Your task to perform on an android device: What's a good restaurant in Miami? Image 0: 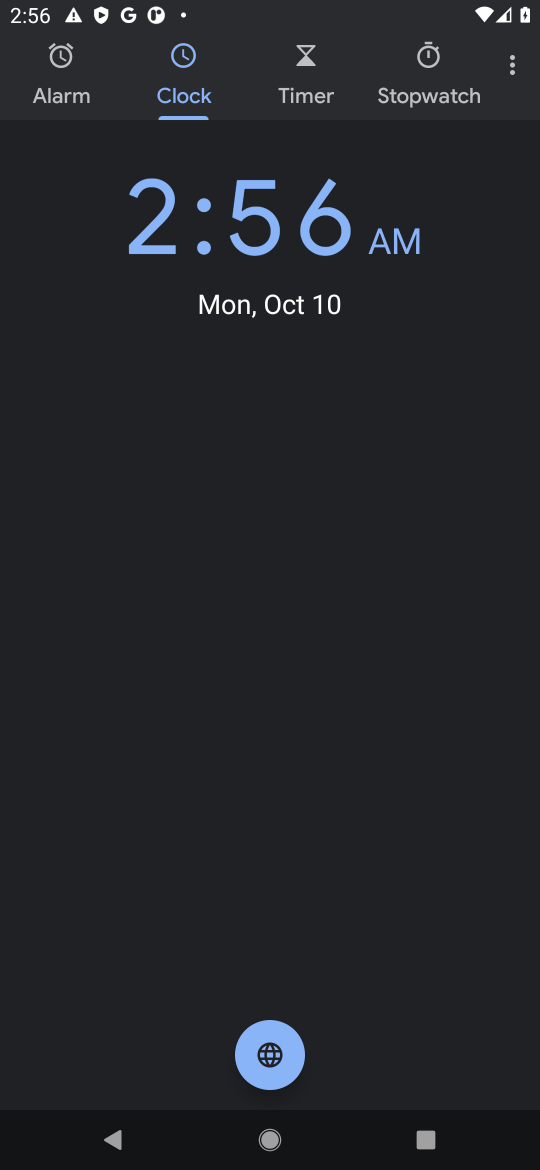
Step 0: press home button
Your task to perform on an android device: What's a good restaurant in Miami? Image 1: 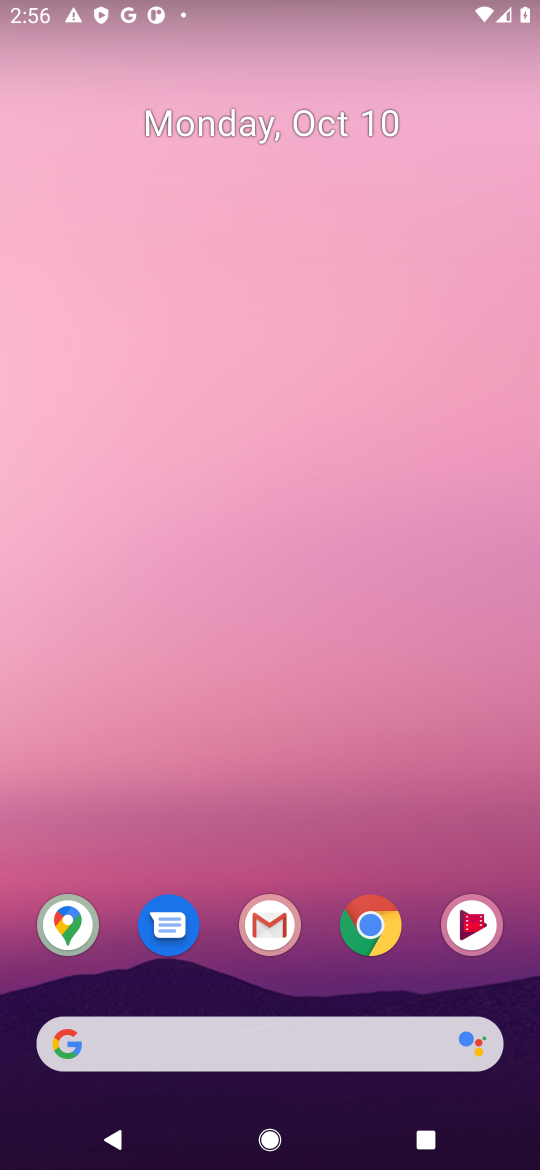
Step 1: click (352, 935)
Your task to perform on an android device: What's a good restaurant in Miami? Image 2: 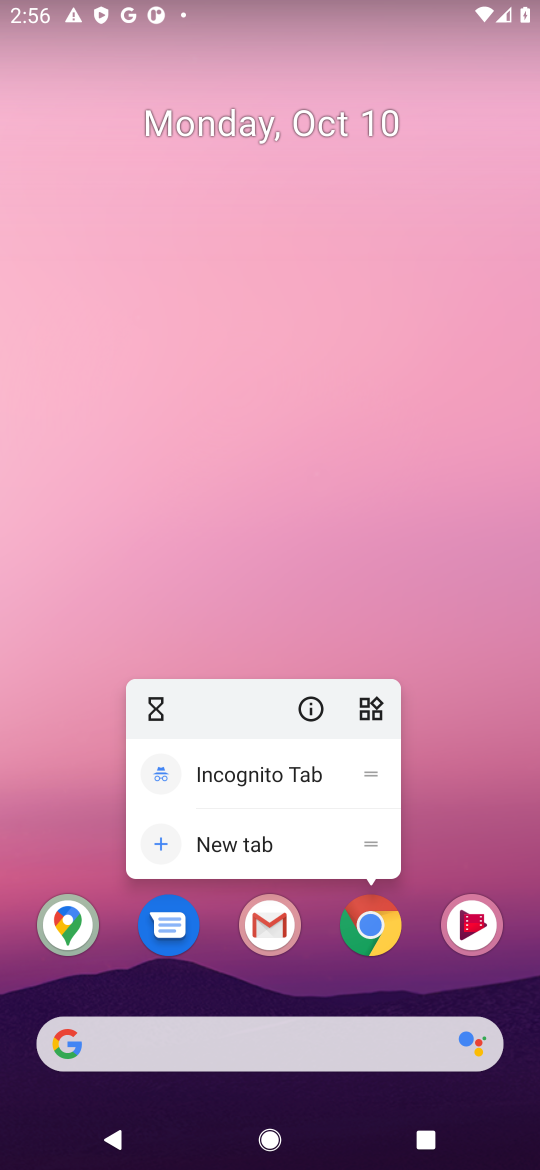
Step 2: click (339, 930)
Your task to perform on an android device: What's a good restaurant in Miami? Image 3: 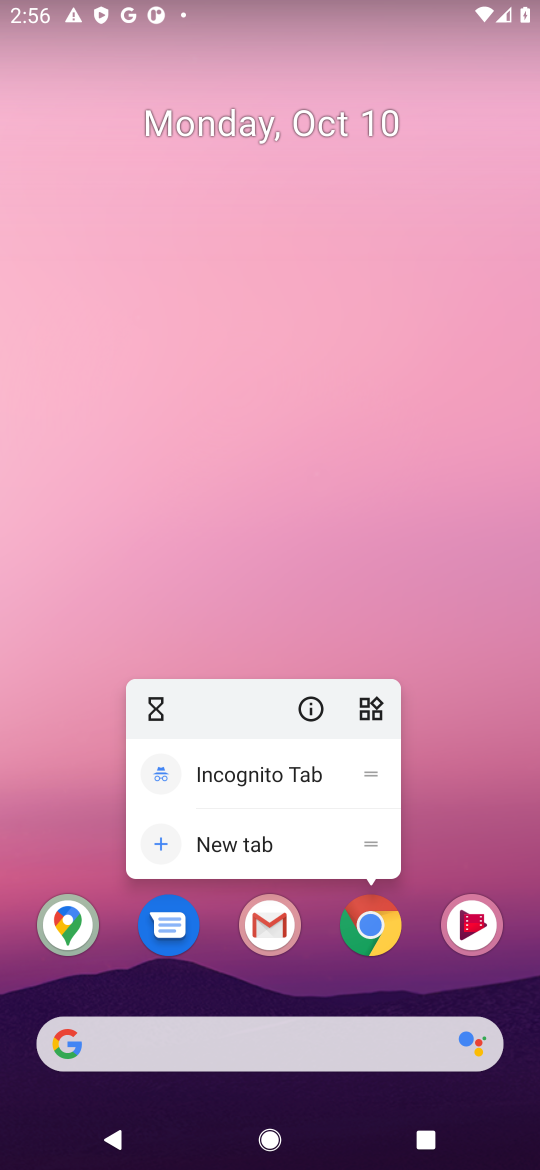
Step 3: click (356, 931)
Your task to perform on an android device: What's a good restaurant in Miami? Image 4: 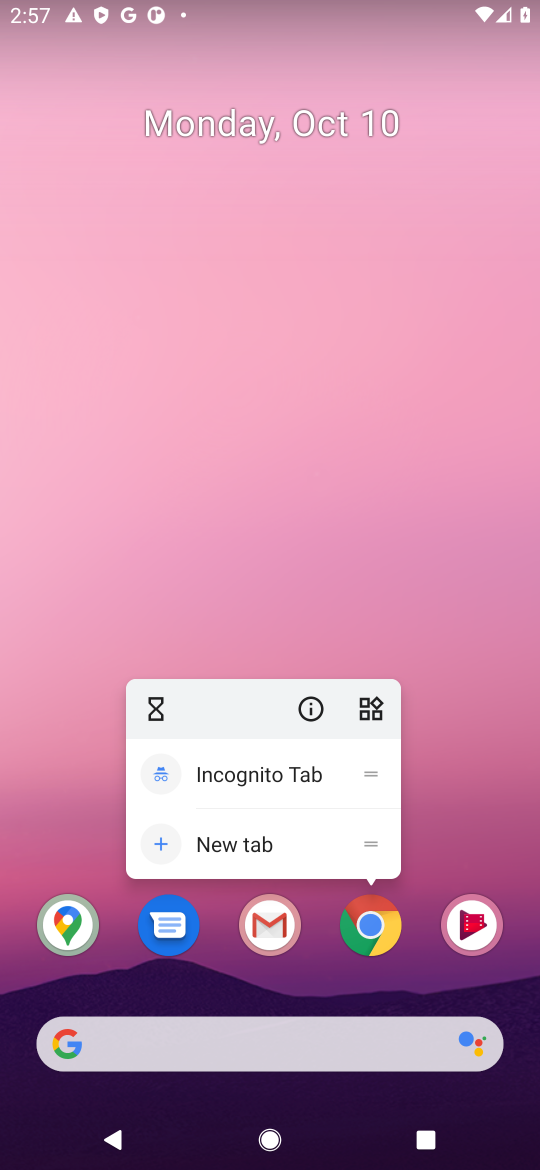
Step 4: click (380, 923)
Your task to perform on an android device: What's a good restaurant in Miami? Image 5: 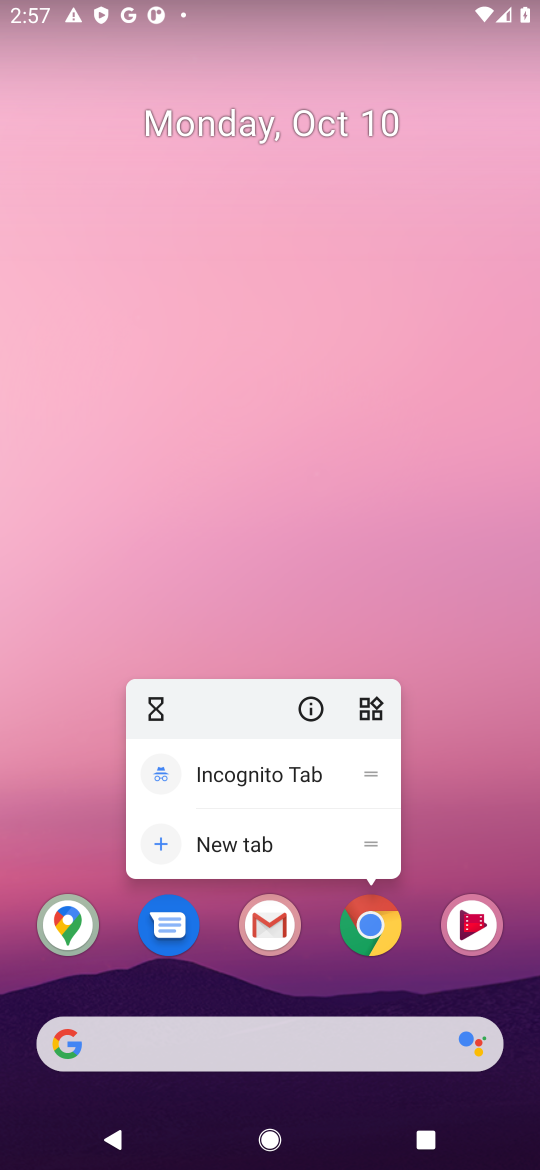
Step 5: click (366, 931)
Your task to perform on an android device: What's a good restaurant in Miami? Image 6: 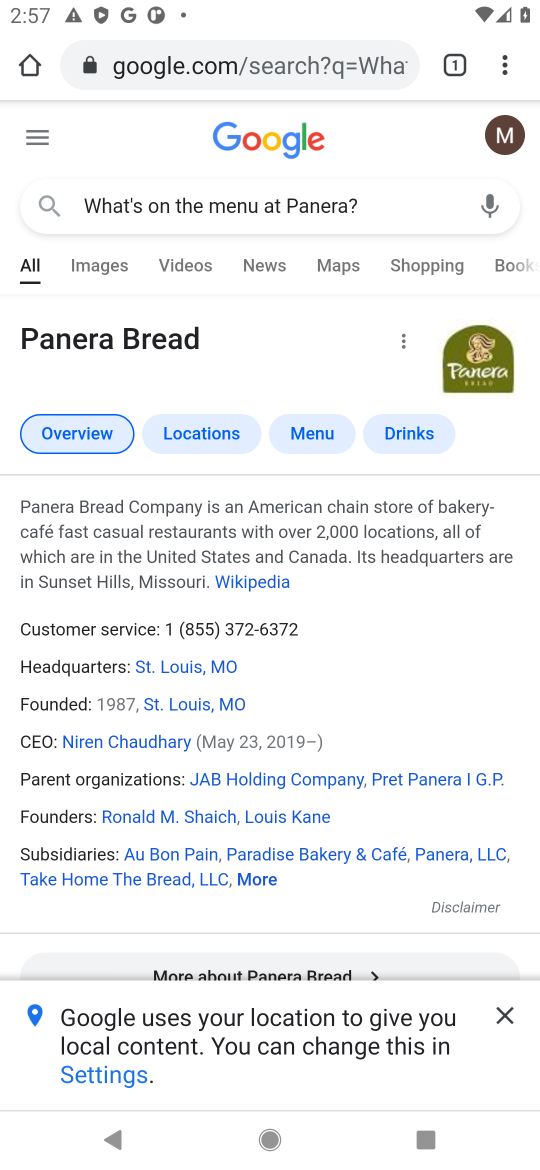
Step 6: click (393, 200)
Your task to perform on an android device: What's a good restaurant in Miami? Image 7: 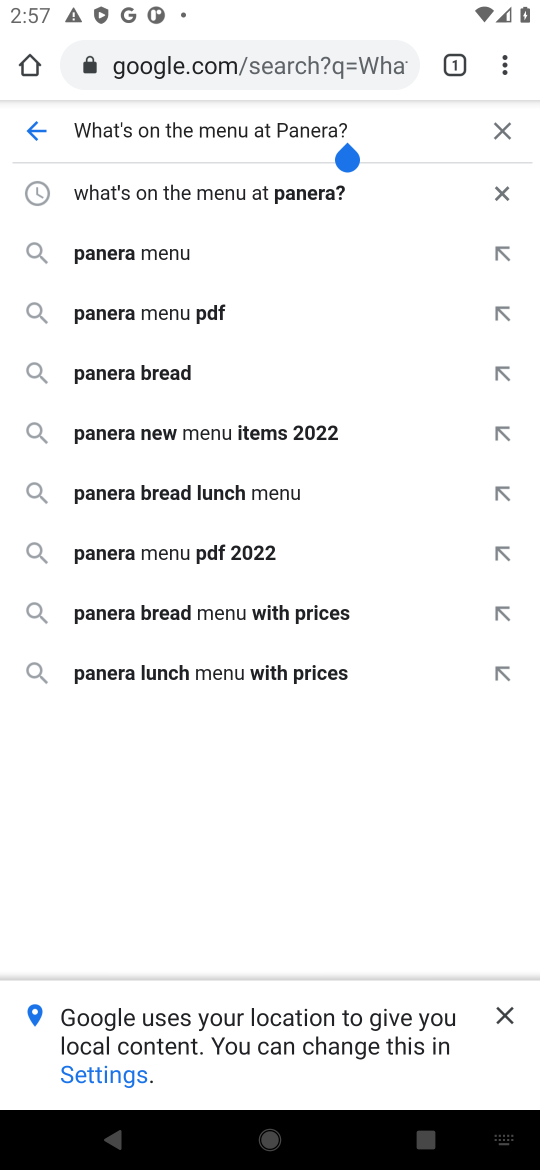
Step 7: click (500, 118)
Your task to perform on an android device: What's a good restaurant in Miami? Image 8: 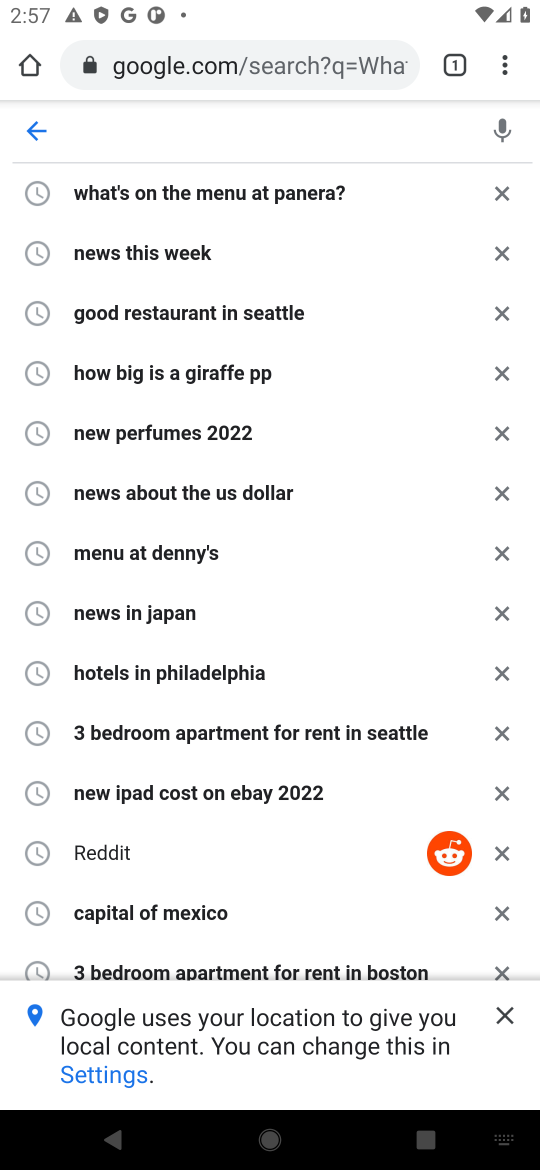
Step 8: type "What's a good restaurant in Miami?"
Your task to perform on an android device: What's a good restaurant in Miami? Image 9: 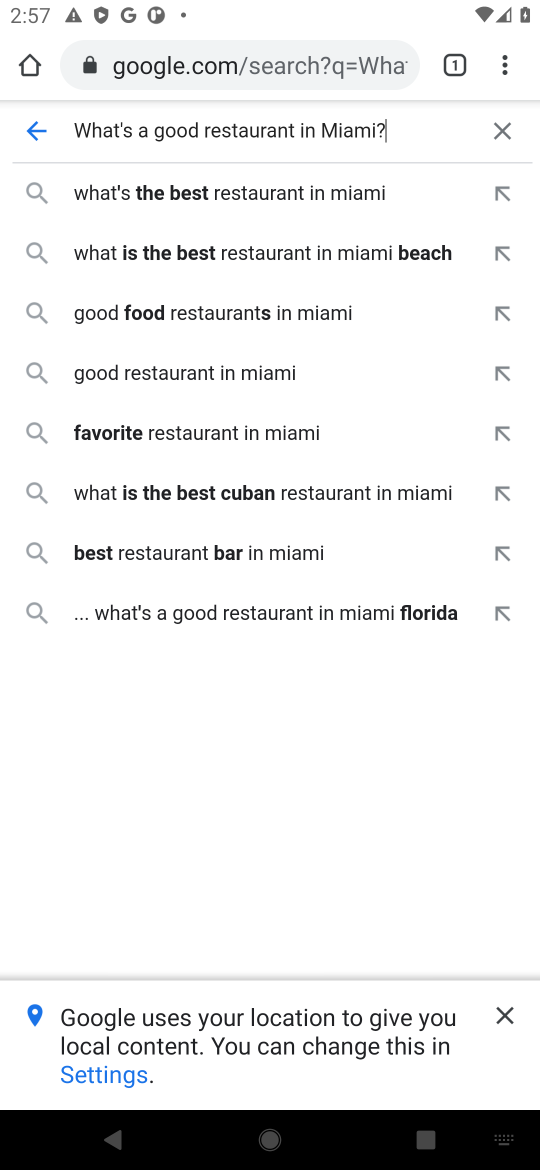
Step 9: press enter
Your task to perform on an android device: What's a good restaurant in Miami? Image 10: 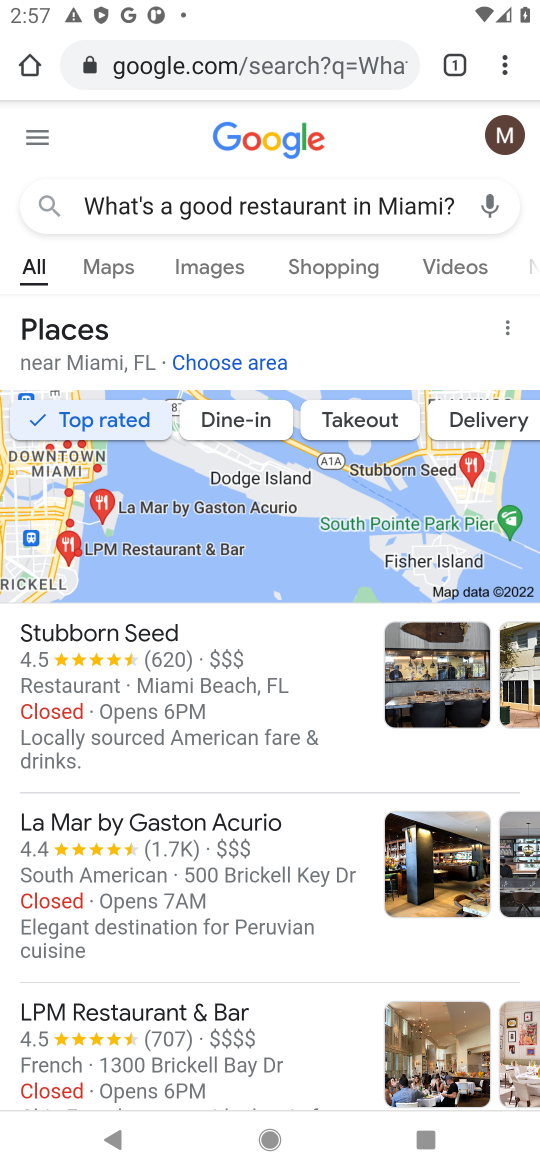
Step 10: task complete